Your task to perform on an android device: Turn off the flashlight Image 0: 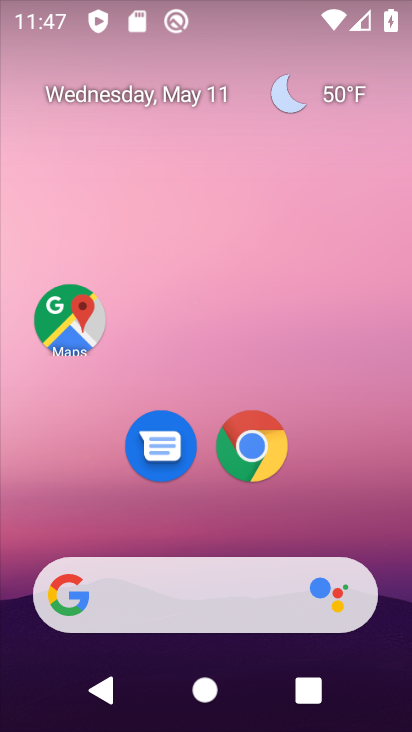
Step 0: drag from (323, 499) to (322, 155)
Your task to perform on an android device: Turn off the flashlight Image 1: 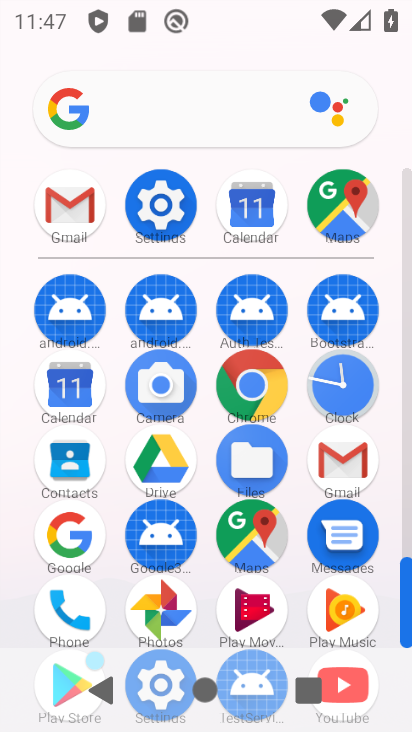
Step 1: click (170, 204)
Your task to perform on an android device: Turn off the flashlight Image 2: 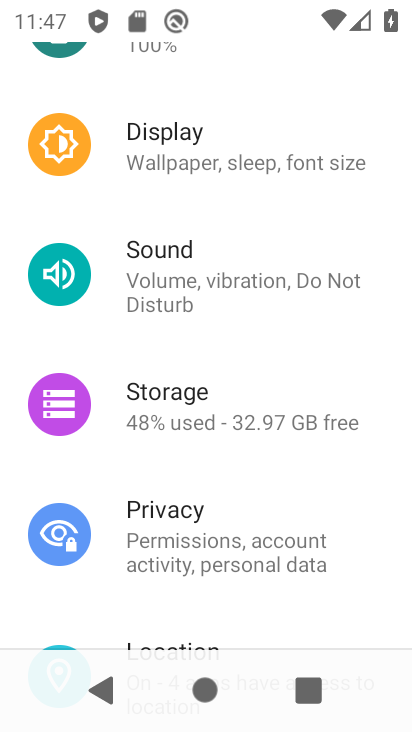
Step 2: drag from (244, 193) to (244, 487)
Your task to perform on an android device: Turn off the flashlight Image 3: 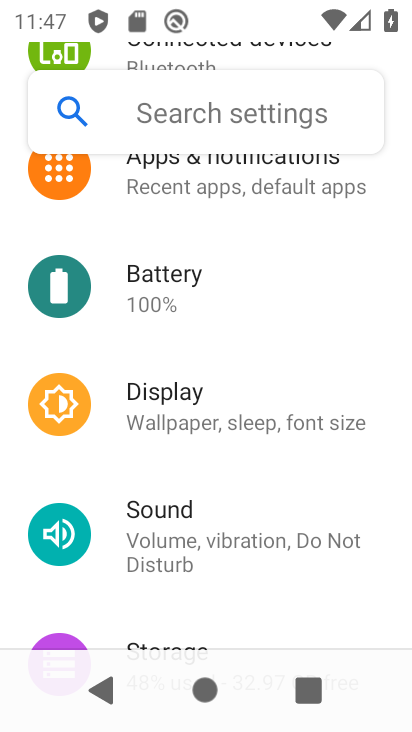
Step 3: click (244, 421)
Your task to perform on an android device: Turn off the flashlight Image 4: 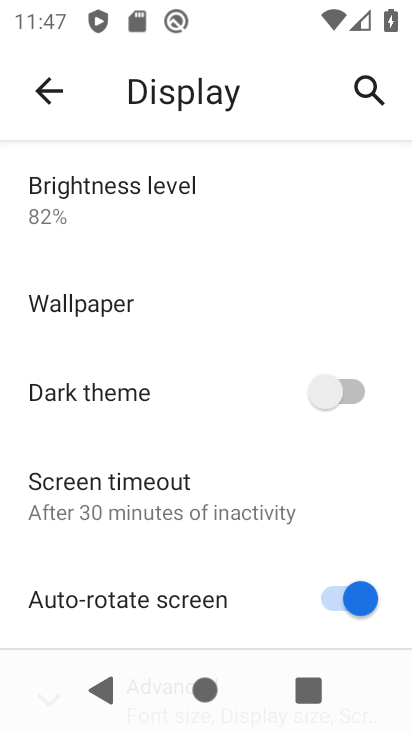
Step 4: drag from (244, 462) to (212, 174)
Your task to perform on an android device: Turn off the flashlight Image 5: 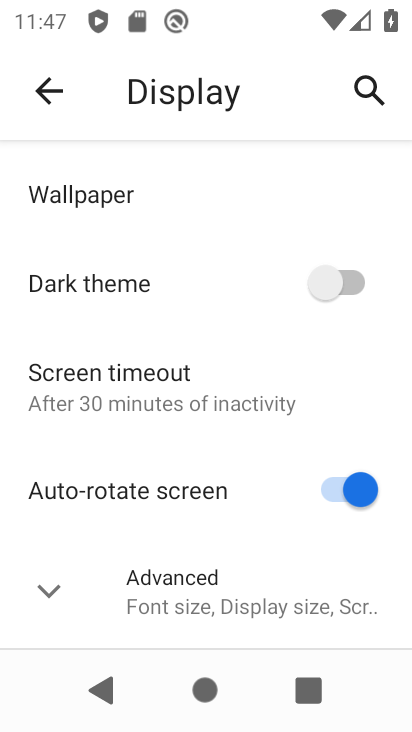
Step 5: drag from (226, 335) to (211, 581)
Your task to perform on an android device: Turn off the flashlight Image 6: 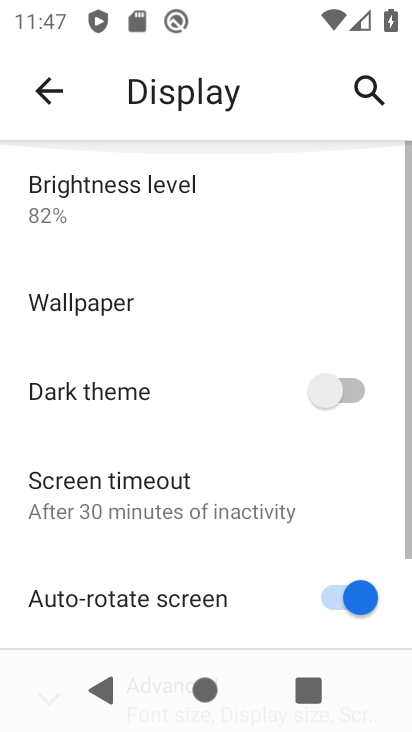
Step 6: drag from (213, 579) to (187, 194)
Your task to perform on an android device: Turn off the flashlight Image 7: 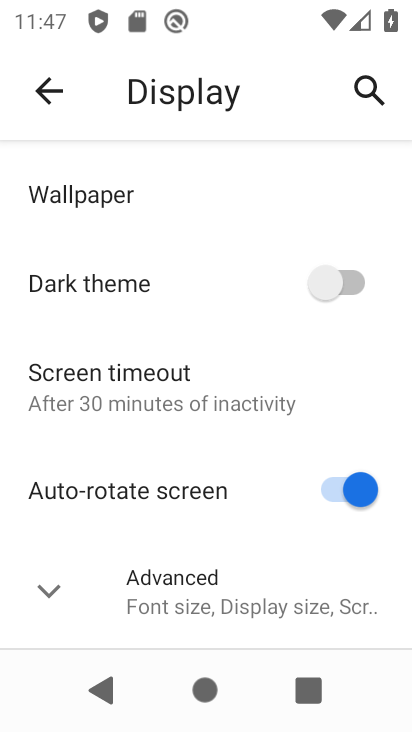
Step 7: click (196, 576)
Your task to perform on an android device: Turn off the flashlight Image 8: 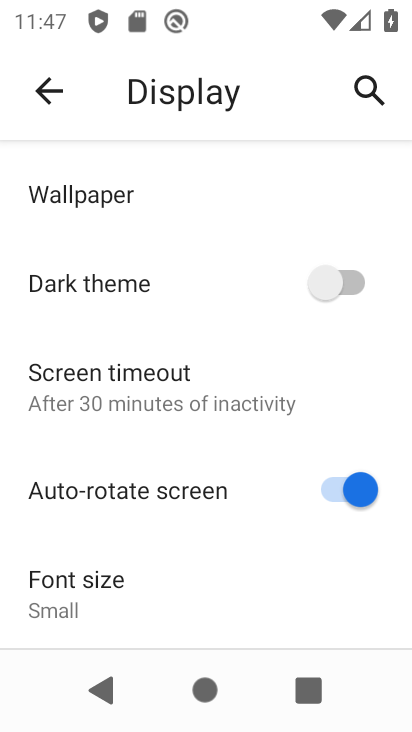
Step 8: task complete